Your task to perform on an android device: turn on translation in the chrome app Image 0: 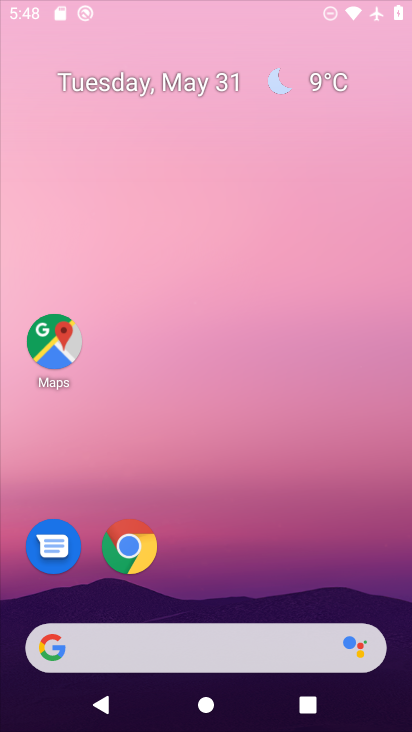
Step 0: click (322, 76)
Your task to perform on an android device: turn on translation in the chrome app Image 1: 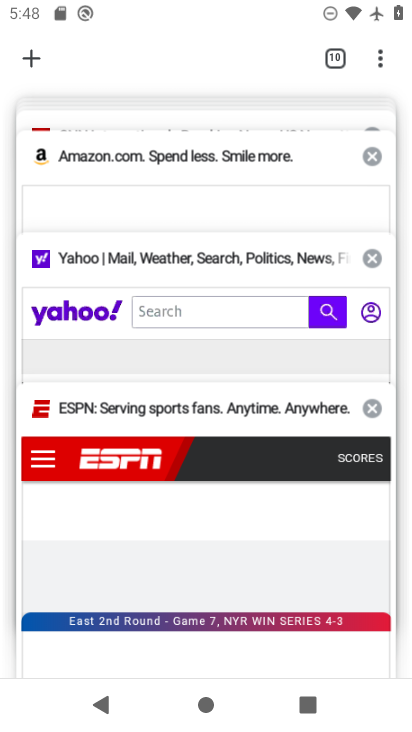
Step 1: click (328, 65)
Your task to perform on an android device: turn on translation in the chrome app Image 2: 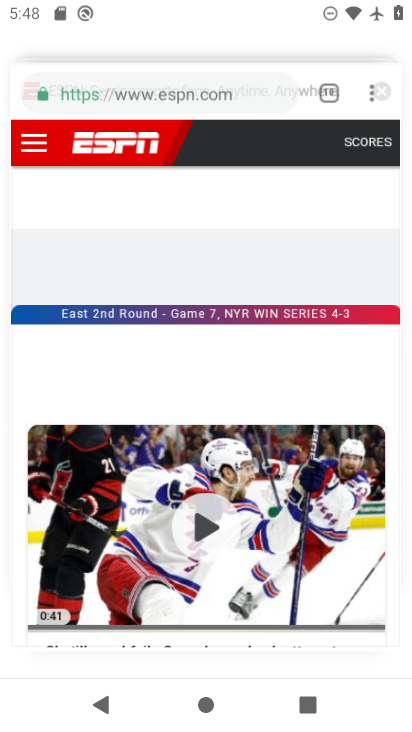
Step 2: click (386, 49)
Your task to perform on an android device: turn on translation in the chrome app Image 3: 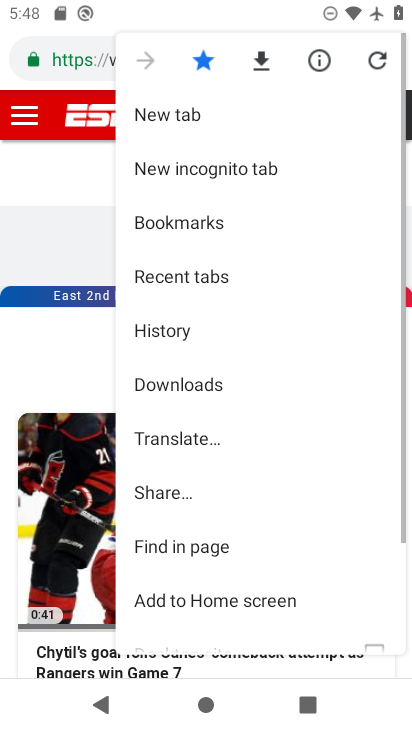
Step 3: drag from (254, 567) to (234, 127)
Your task to perform on an android device: turn on translation in the chrome app Image 4: 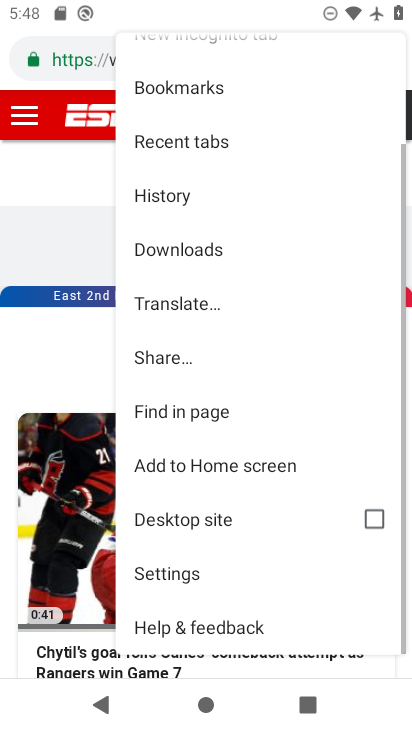
Step 4: click (227, 576)
Your task to perform on an android device: turn on translation in the chrome app Image 5: 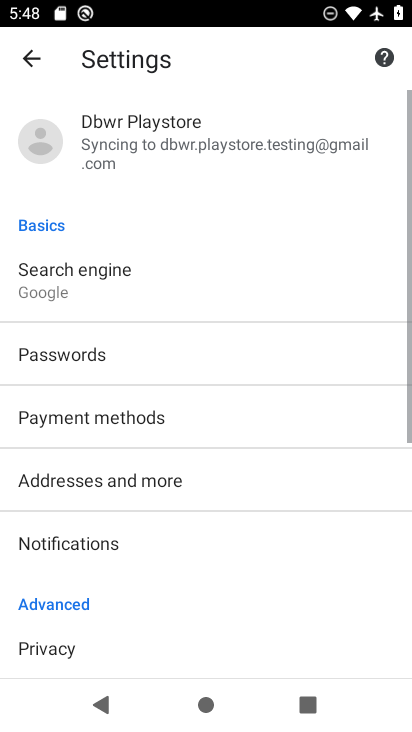
Step 5: drag from (156, 195) to (128, 140)
Your task to perform on an android device: turn on translation in the chrome app Image 6: 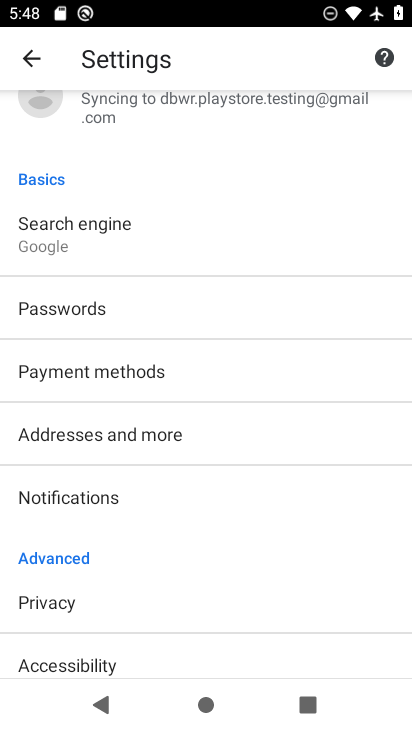
Step 6: drag from (128, 579) to (122, 277)
Your task to perform on an android device: turn on translation in the chrome app Image 7: 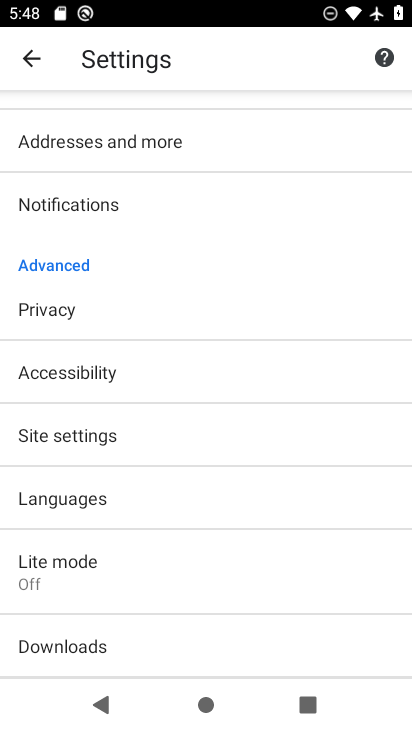
Step 7: click (88, 509)
Your task to perform on an android device: turn on translation in the chrome app Image 8: 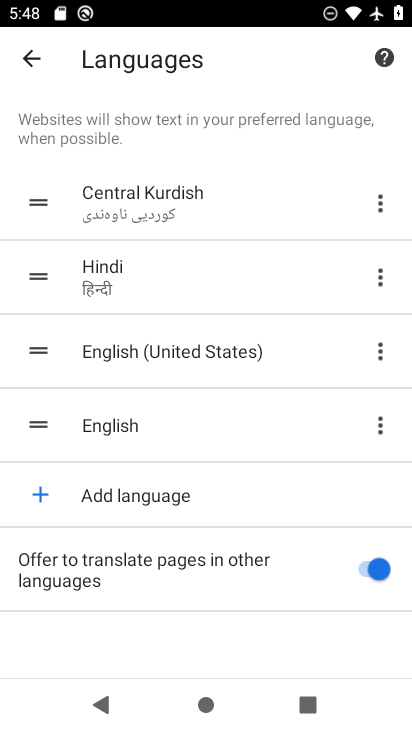
Step 8: task complete